Your task to perform on an android device: uninstall "Google News" Image 0: 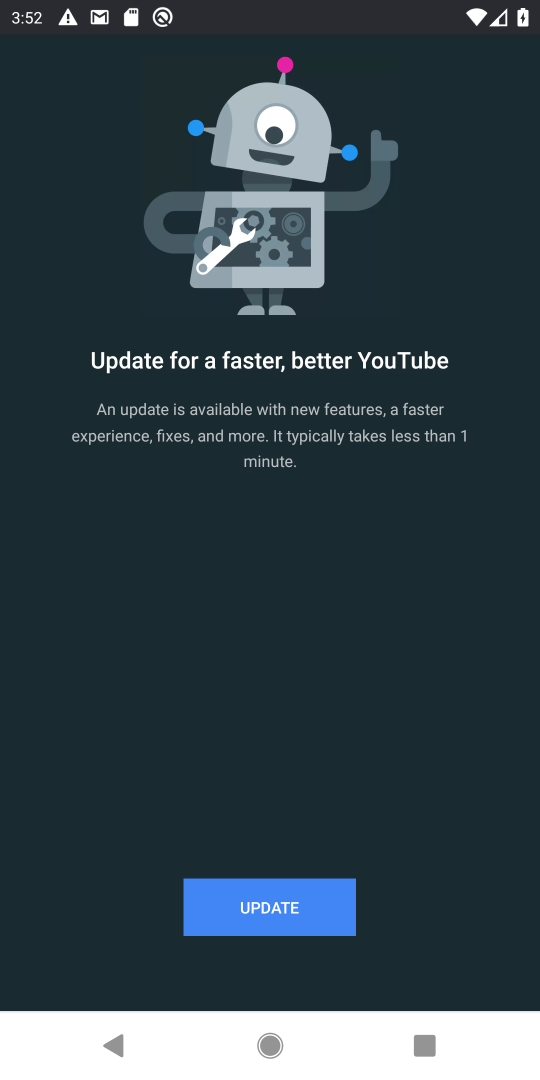
Step 0: press home button
Your task to perform on an android device: uninstall "Google News" Image 1: 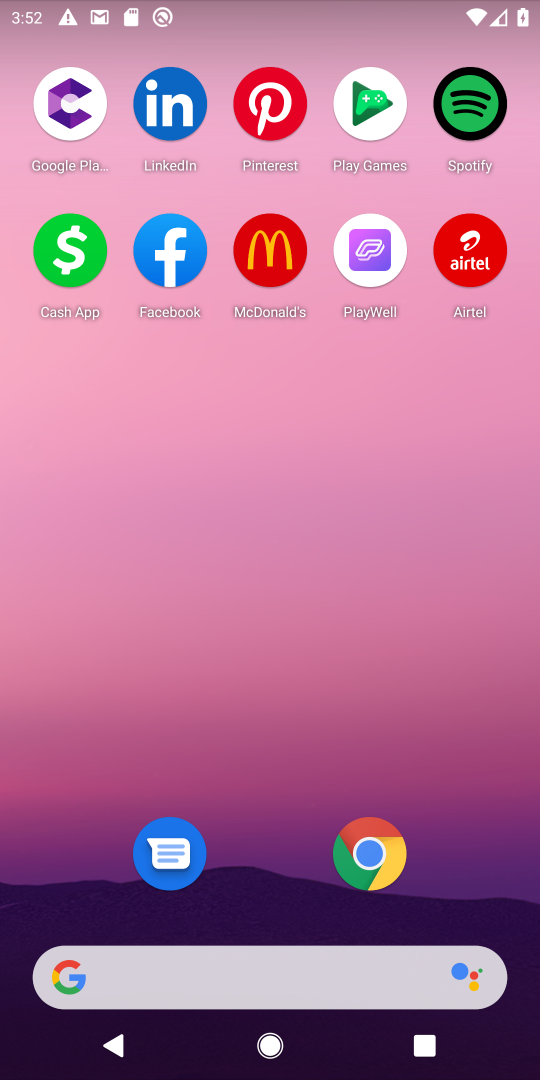
Step 1: drag from (307, 1063) to (352, 106)
Your task to perform on an android device: uninstall "Google News" Image 2: 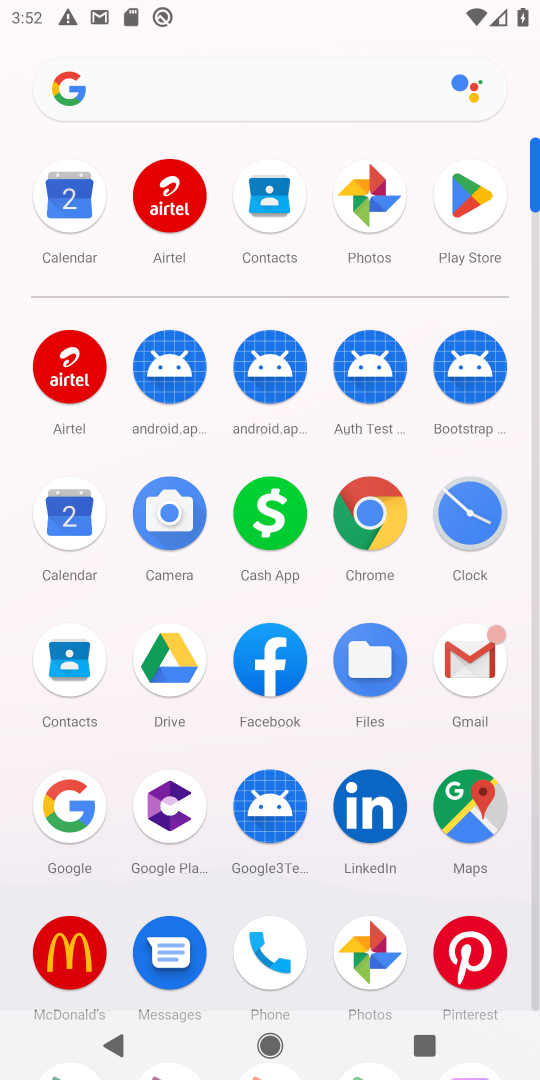
Step 2: click (462, 194)
Your task to perform on an android device: uninstall "Google News" Image 3: 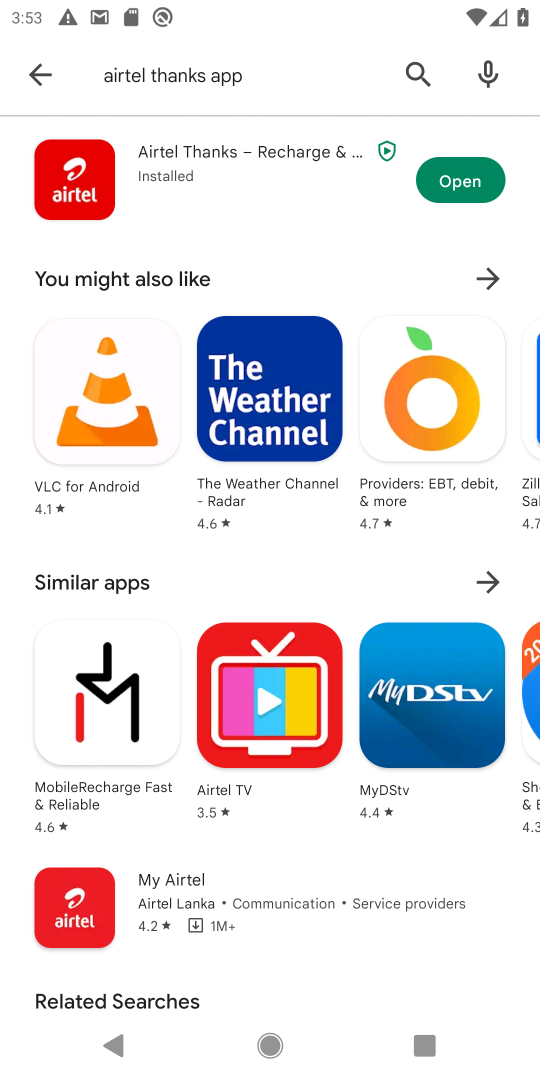
Step 3: click (410, 72)
Your task to perform on an android device: uninstall "Google News" Image 4: 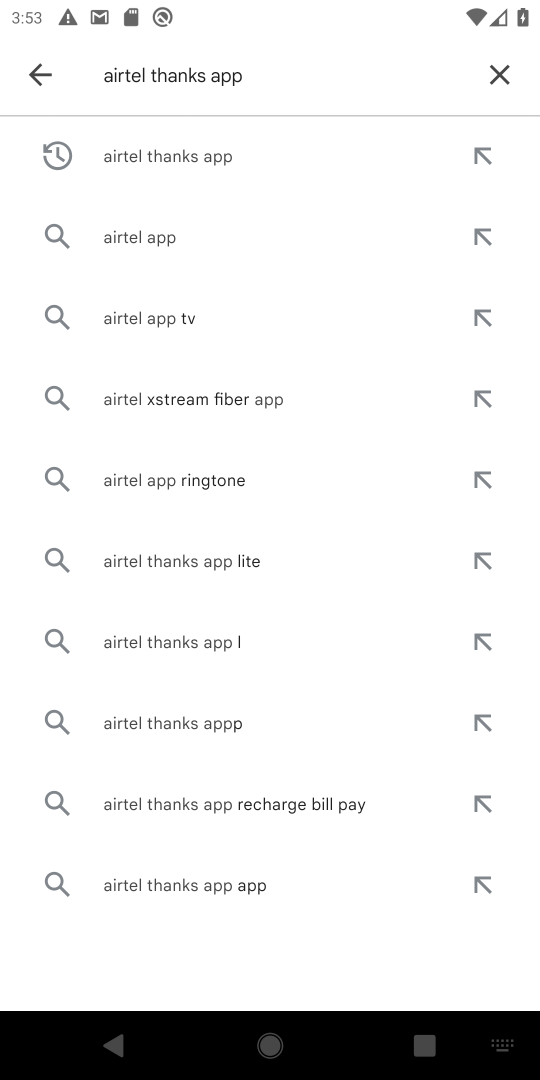
Step 4: click (495, 65)
Your task to perform on an android device: uninstall "Google News" Image 5: 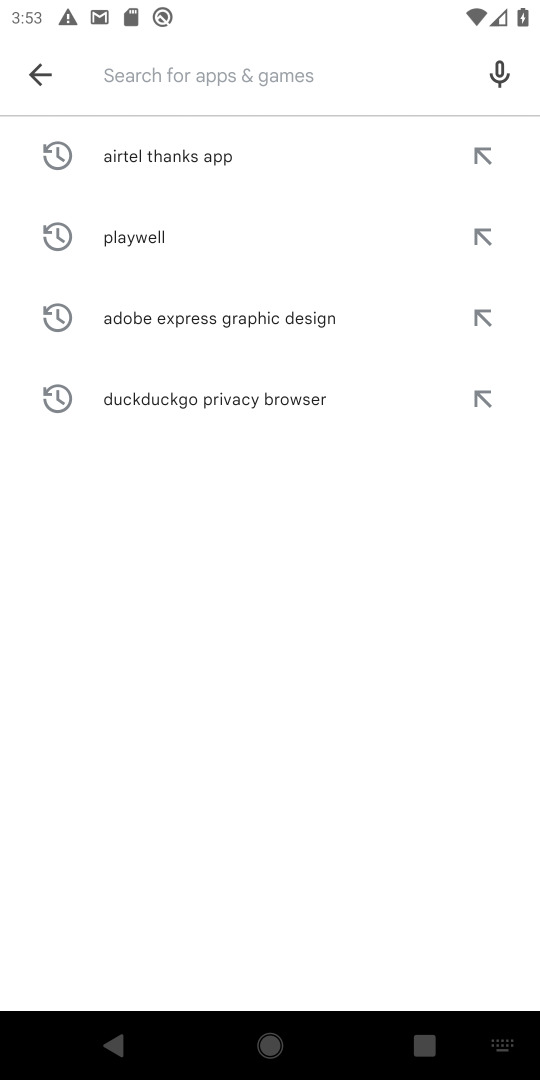
Step 5: type "Google News"
Your task to perform on an android device: uninstall "Google News" Image 6: 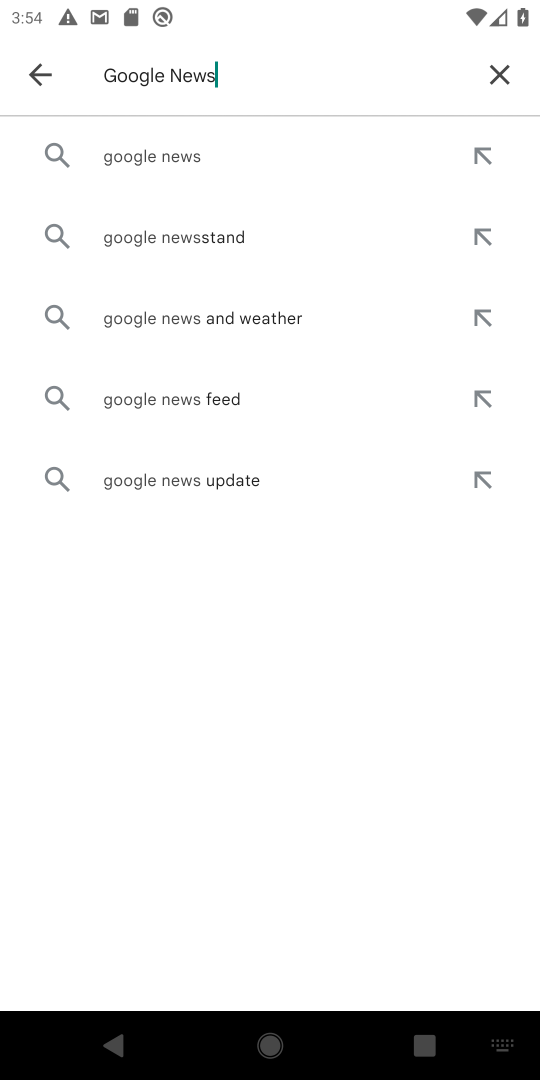
Step 6: click (143, 154)
Your task to perform on an android device: uninstall "Google News" Image 7: 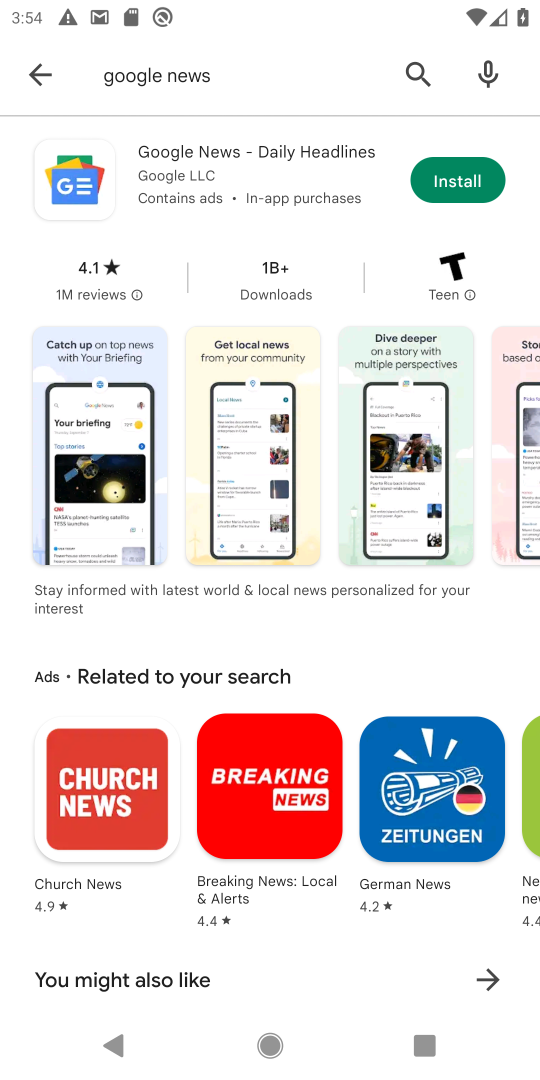
Step 7: click (241, 175)
Your task to perform on an android device: uninstall "Google News" Image 8: 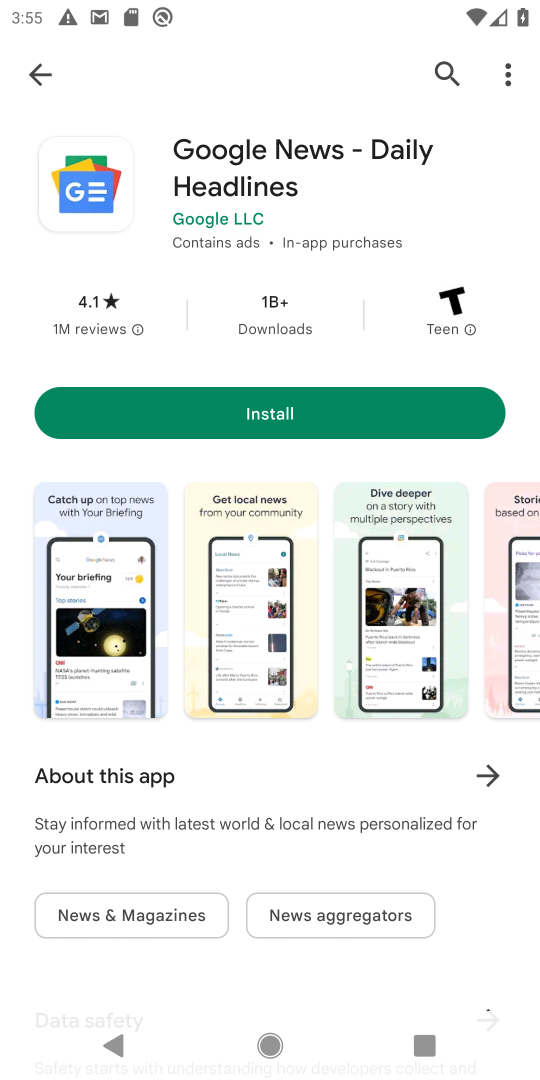
Step 8: task complete